Your task to perform on an android device: remove spam from my inbox in the gmail app Image 0: 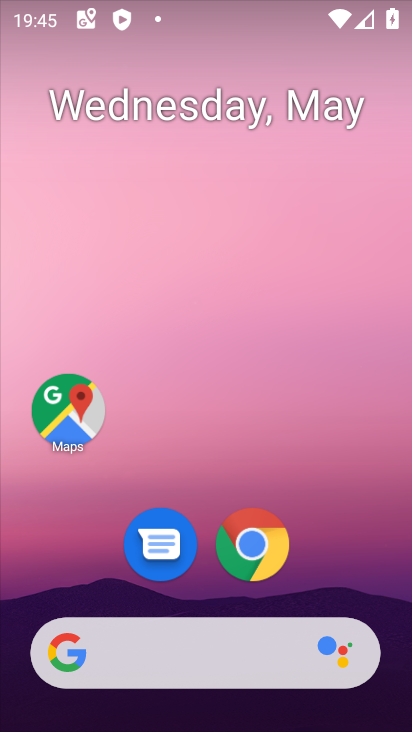
Step 0: drag from (216, 596) to (279, 38)
Your task to perform on an android device: remove spam from my inbox in the gmail app Image 1: 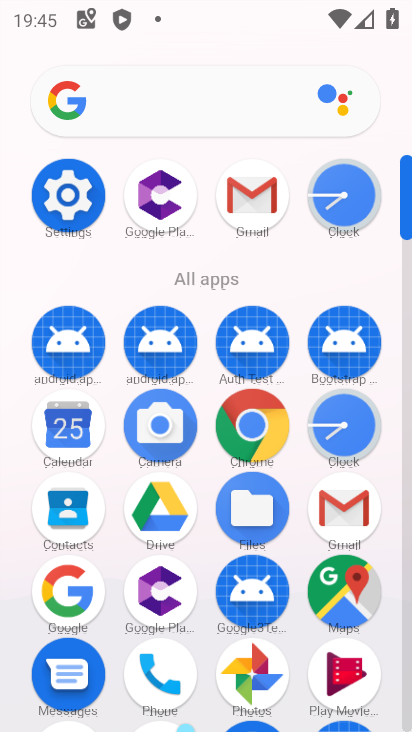
Step 1: click (263, 189)
Your task to perform on an android device: remove spam from my inbox in the gmail app Image 2: 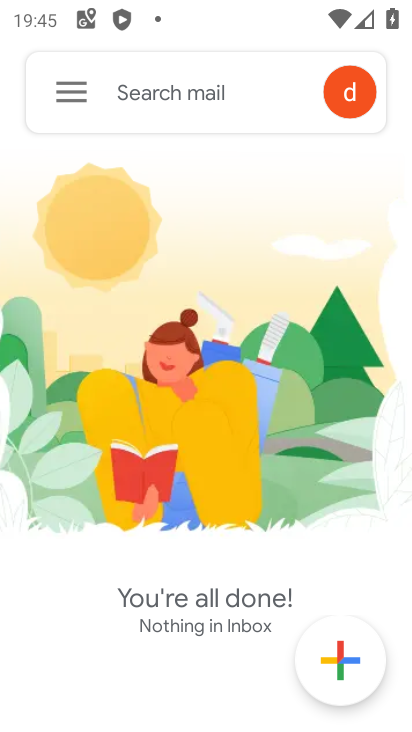
Step 2: click (55, 87)
Your task to perform on an android device: remove spam from my inbox in the gmail app Image 3: 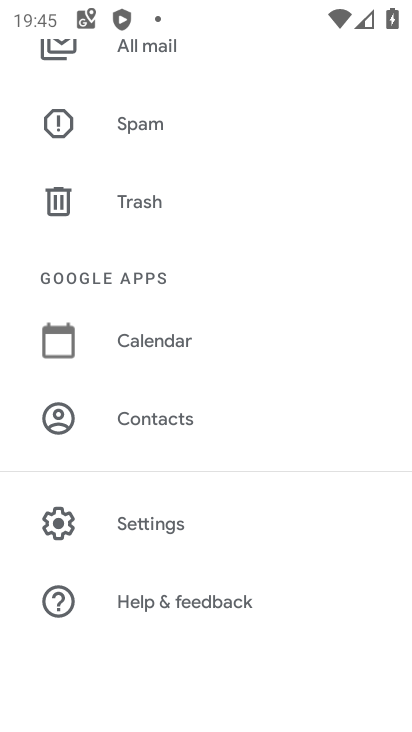
Step 3: click (157, 147)
Your task to perform on an android device: remove spam from my inbox in the gmail app Image 4: 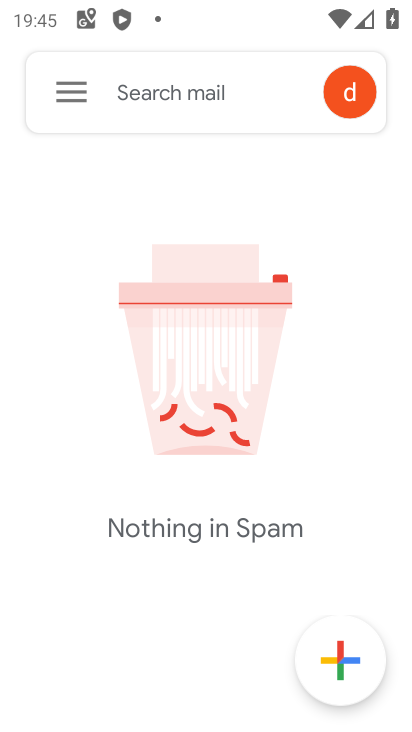
Step 4: task complete